Your task to perform on an android device: Go to Yahoo.com Image 0: 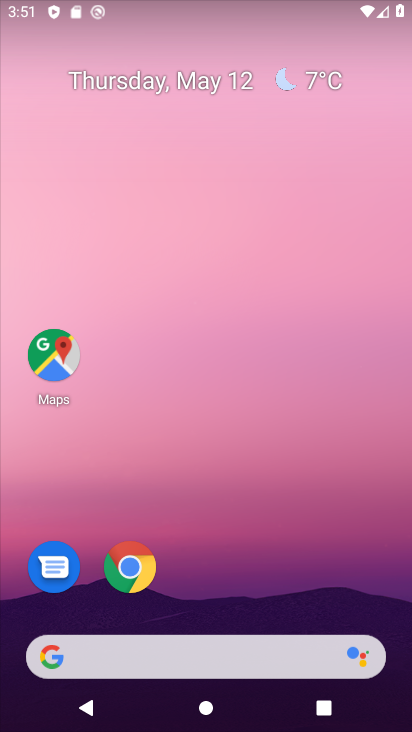
Step 0: click (134, 564)
Your task to perform on an android device: Go to Yahoo.com Image 1: 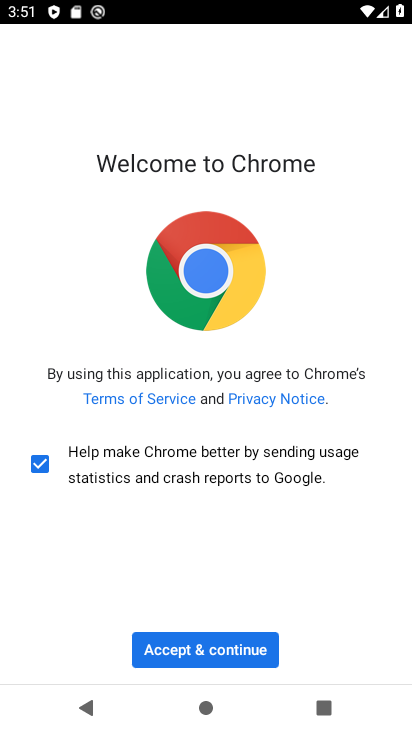
Step 1: click (230, 641)
Your task to perform on an android device: Go to Yahoo.com Image 2: 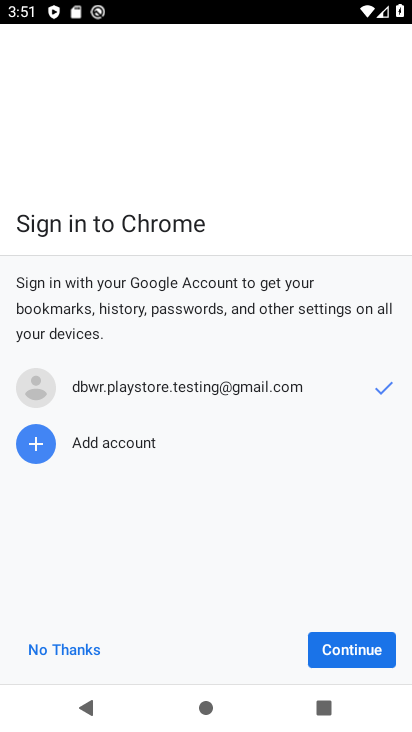
Step 2: click (339, 645)
Your task to perform on an android device: Go to Yahoo.com Image 3: 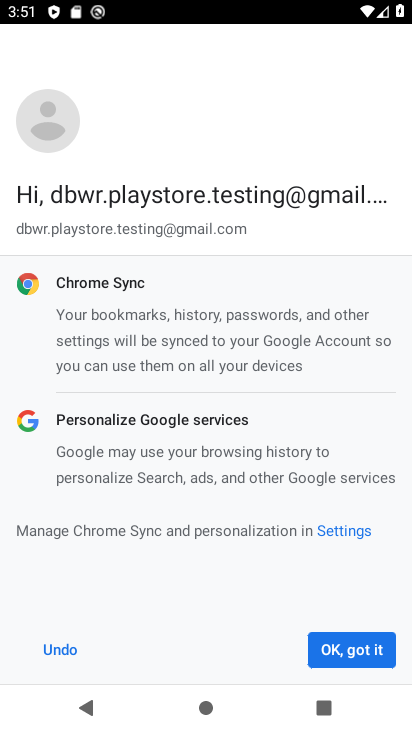
Step 3: click (339, 645)
Your task to perform on an android device: Go to Yahoo.com Image 4: 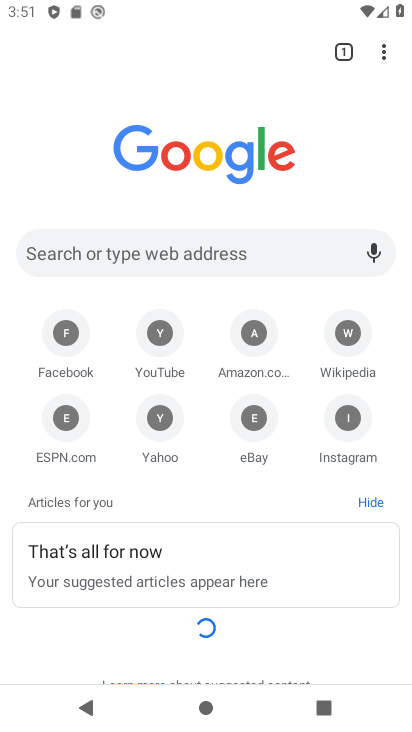
Step 4: click (158, 425)
Your task to perform on an android device: Go to Yahoo.com Image 5: 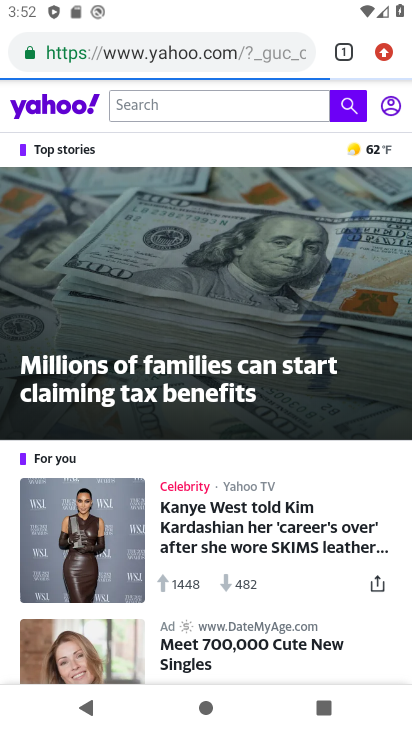
Step 5: task complete